Your task to perform on an android device: What's the weather going to be tomorrow? Image 0: 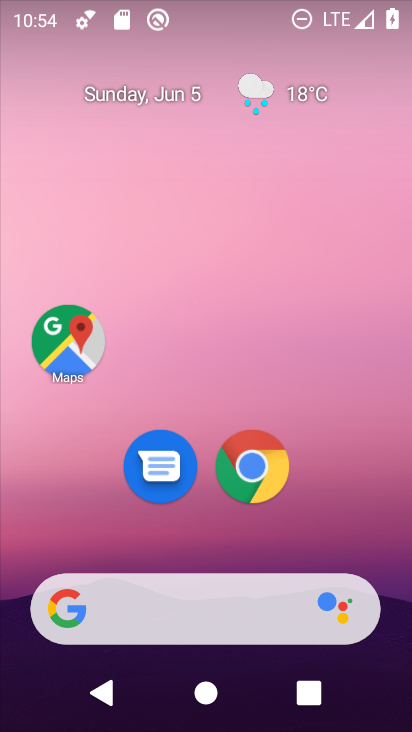
Step 0: drag from (342, 512) to (226, 31)
Your task to perform on an android device: What's the weather going to be tomorrow? Image 1: 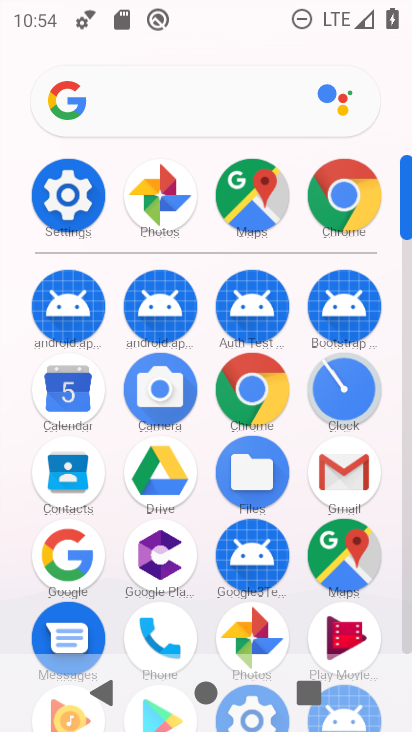
Step 1: drag from (23, 579) to (22, 273)
Your task to perform on an android device: What's the weather going to be tomorrow? Image 2: 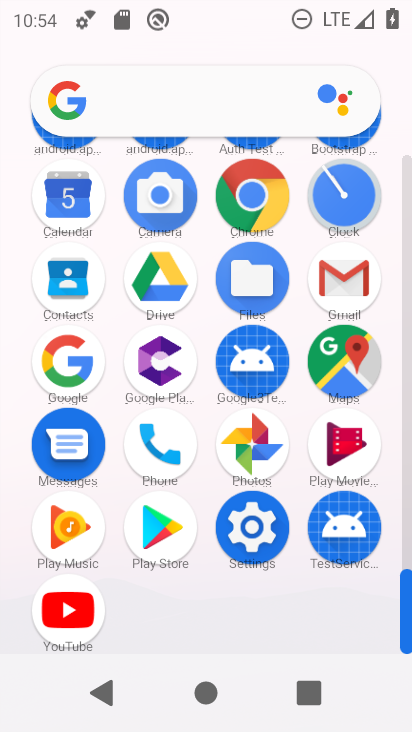
Step 2: click (257, 194)
Your task to perform on an android device: What's the weather going to be tomorrow? Image 3: 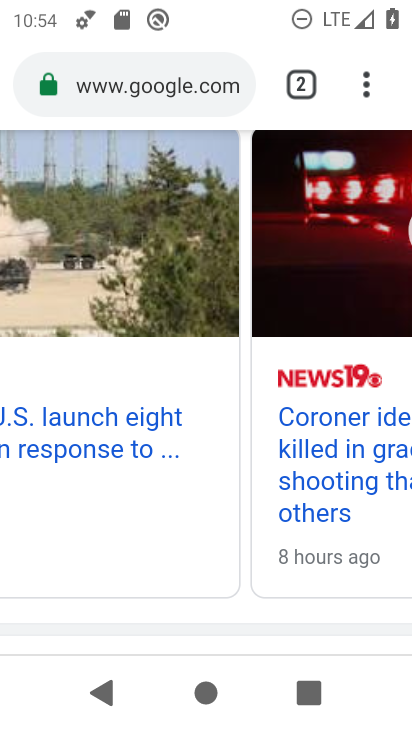
Step 3: click (131, 77)
Your task to perform on an android device: What's the weather going to be tomorrow? Image 4: 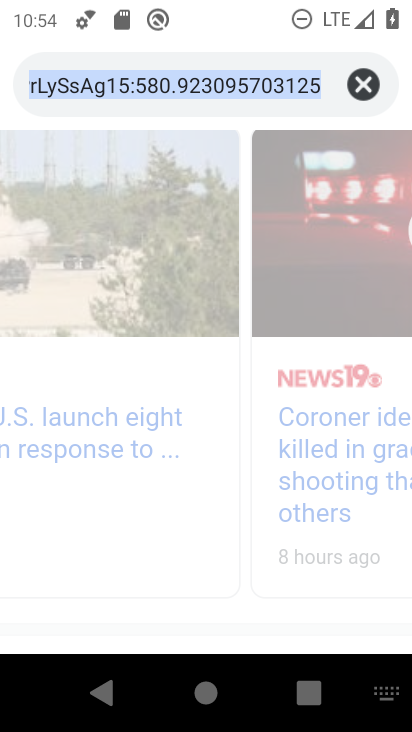
Step 4: click (357, 81)
Your task to perform on an android device: What's the weather going to be tomorrow? Image 5: 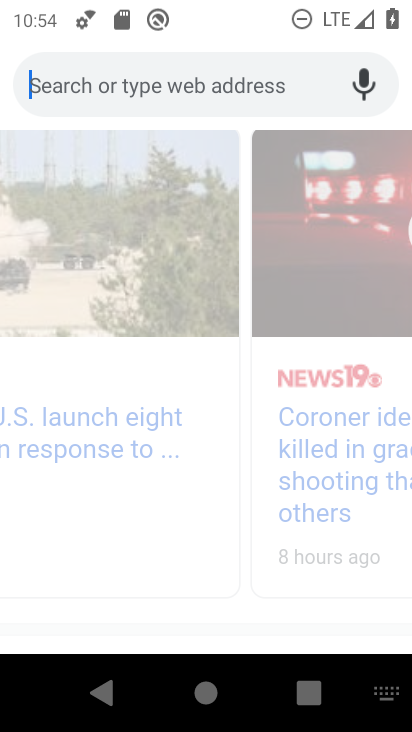
Step 5: type "What's the weather going to be tomorrow?"
Your task to perform on an android device: What's the weather going to be tomorrow? Image 6: 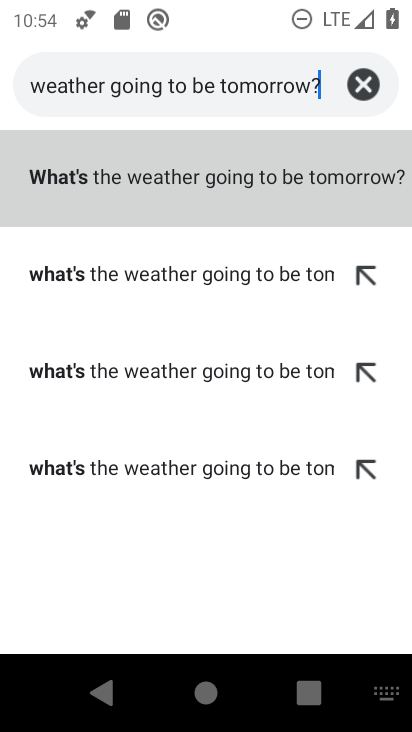
Step 6: type ""
Your task to perform on an android device: What's the weather going to be tomorrow? Image 7: 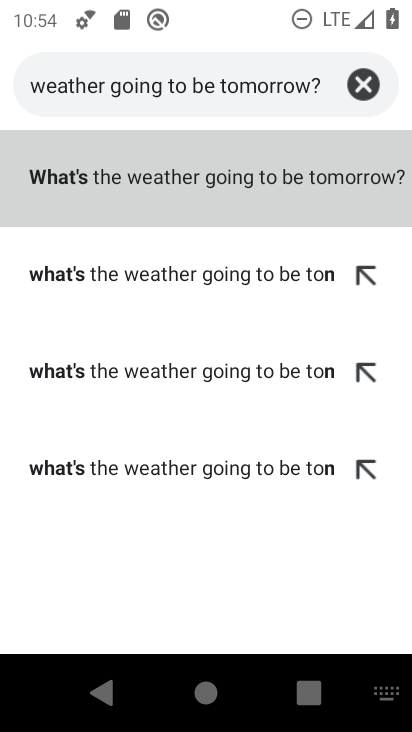
Step 7: click (139, 185)
Your task to perform on an android device: What's the weather going to be tomorrow? Image 8: 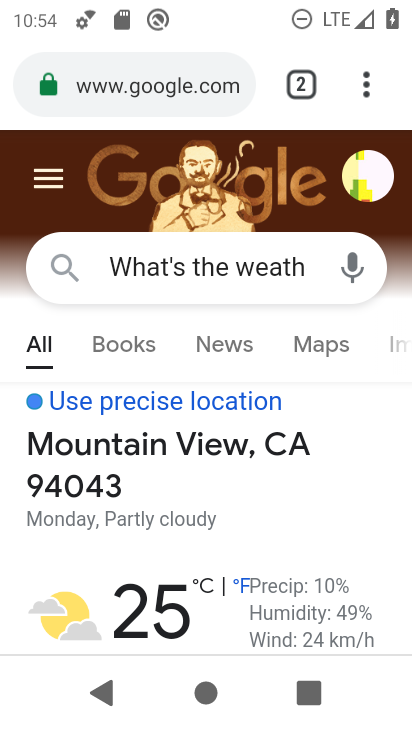
Step 8: task complete